Your task to perform on an android device: Open maps Image 0: 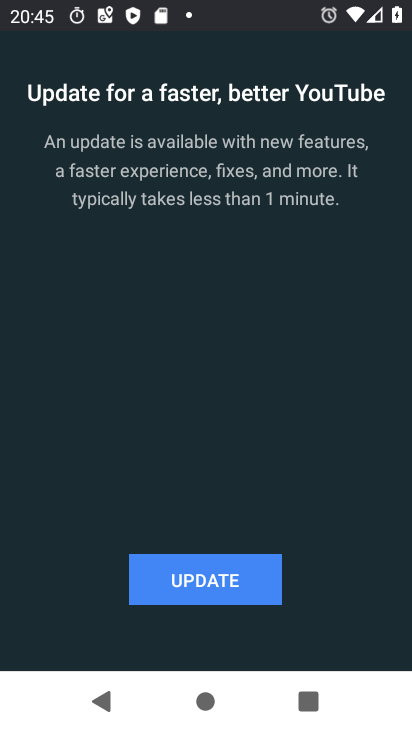
Step 0: press home button
Your task to perform on an android device: Open maps Image 1: 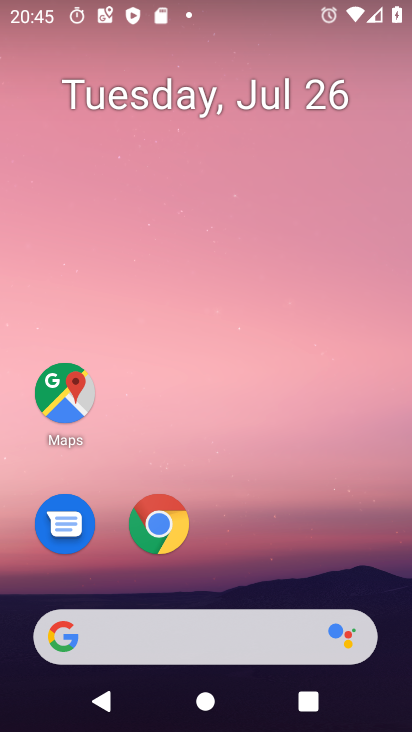
Step 1: click (59, 381)
Your task to perform on an android device: Open maps Image 2: 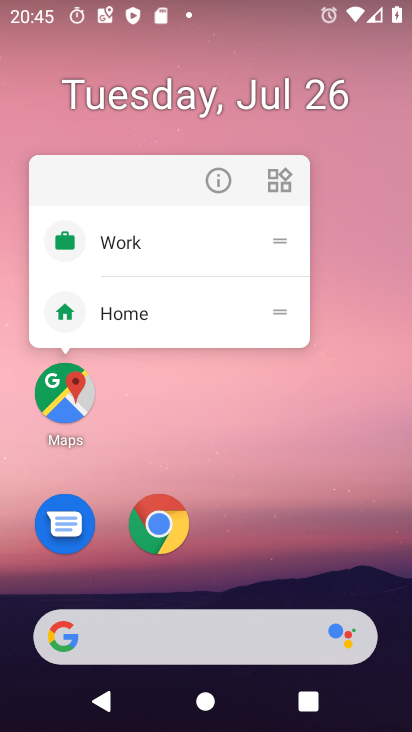
Step 2: click (68, 389)
Your task to perform on an android device: Open maps Image 3: 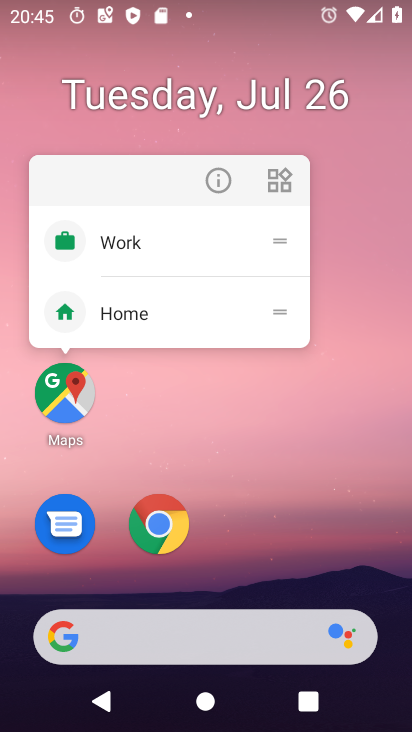
Step 3: click (60, 395)
Your task to perform on an android device: Open maps Image 4: 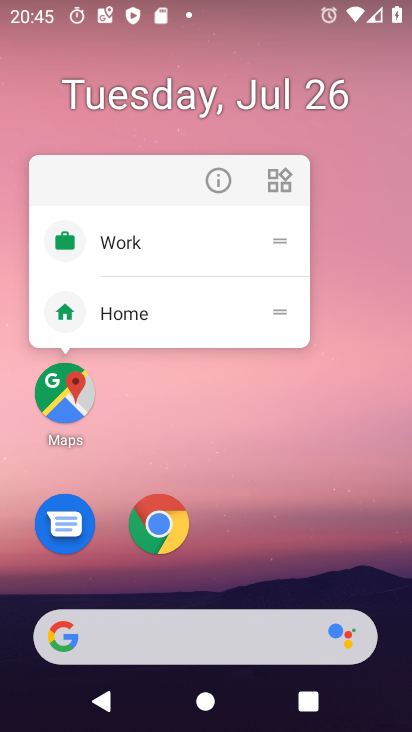
Step 4: click (60, 396)
Your task to perform on an android device: Open maps Image 5: 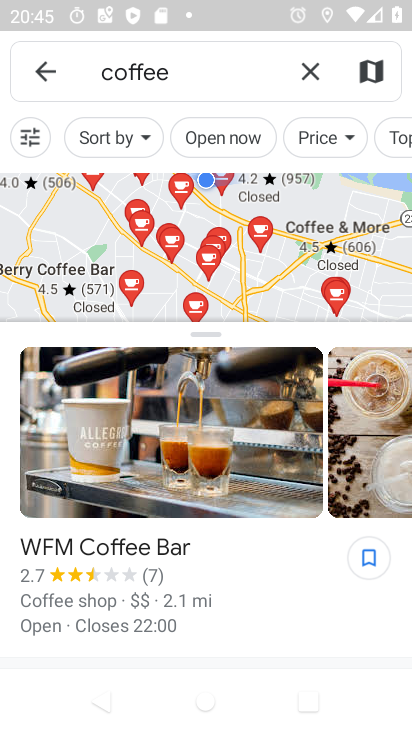
Step 5: click (309, 65)
Your task to perform on an android device: Open maps Image 6: 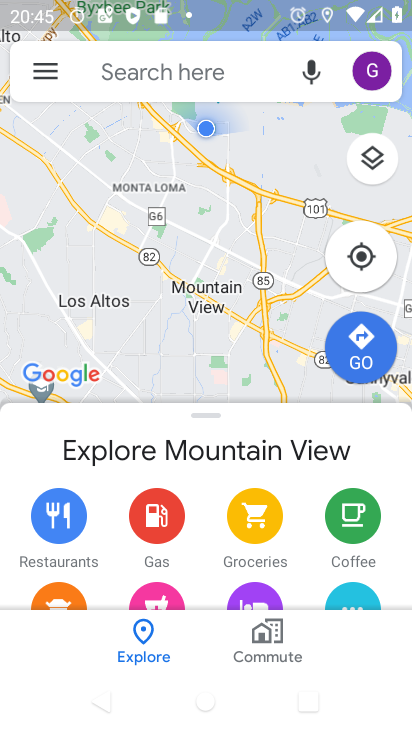
Step 6: task complete